Your task to perform on an android device: Open Chrome and go to settings Image 0: 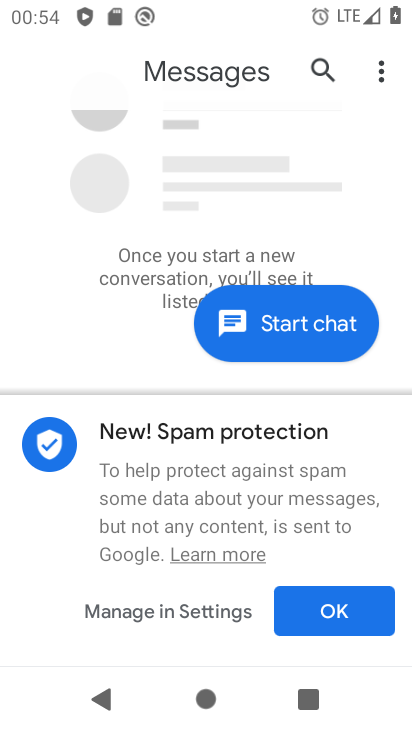
Step 0: press home button
Your task to perform on an android device: Open Chrome and go to settings Image 1: 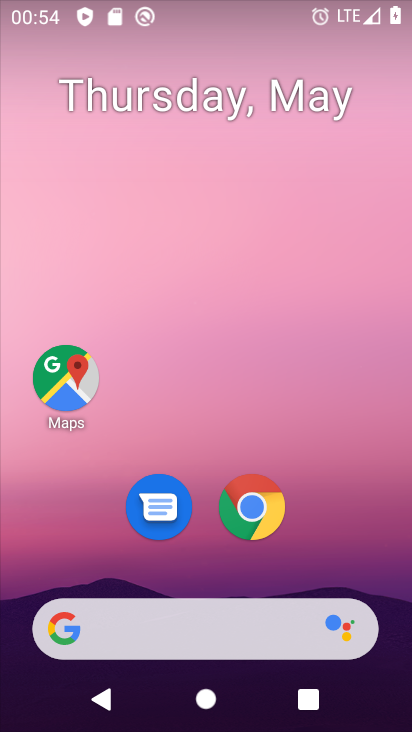
Step 1: click (260, 519)
Your task to perform on an android device: Open Chrome and go to settings Image 2: 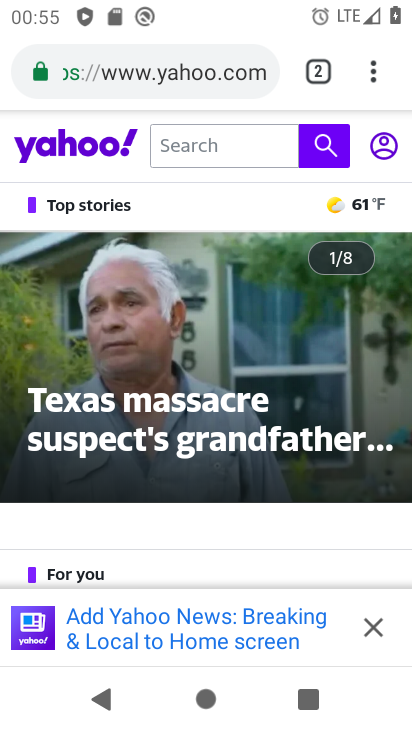
Step 2: click (374, 83)
Your task to perform on an android device: Open Chrome and go to settings Image 3: 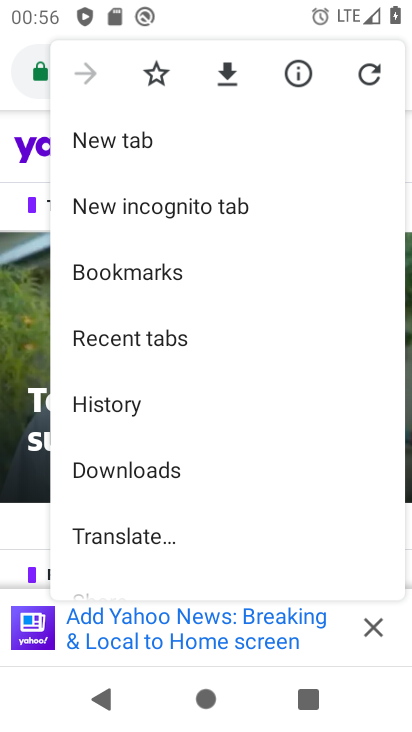
Step 3: drag from (202, 550) to (224, 314)
Your task to perform on an android device: Open Chrome and go to settings Image 4: 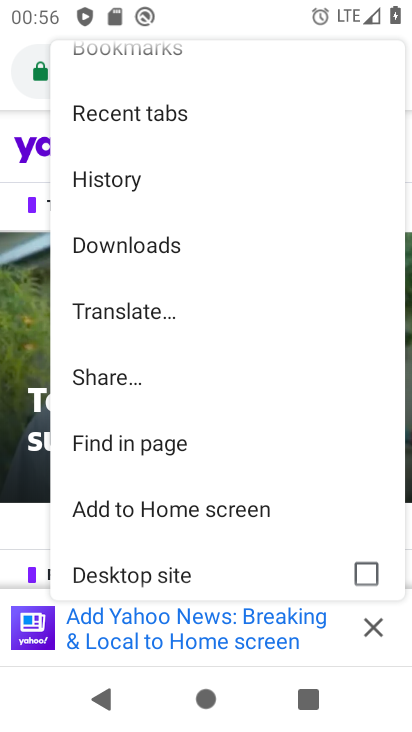
Step 4: drag from (178, 523) to (253, 306)
Your task to perform on an android device: Open Chrome and go to settings Image 5: 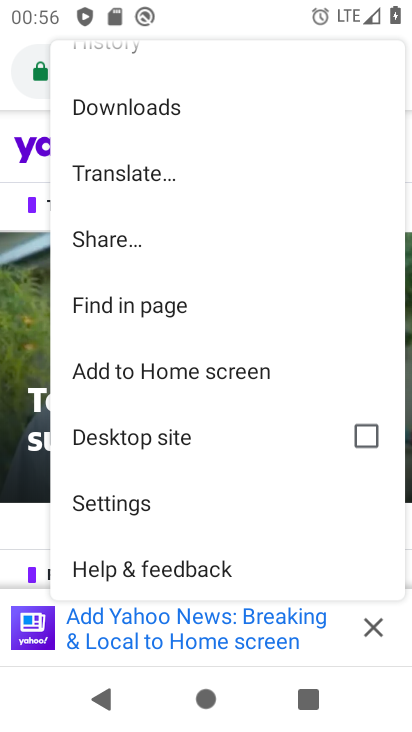
Step 5: click (149, 504)
Your task to perform on an android device: Open Chrome and go to settings Image 6: 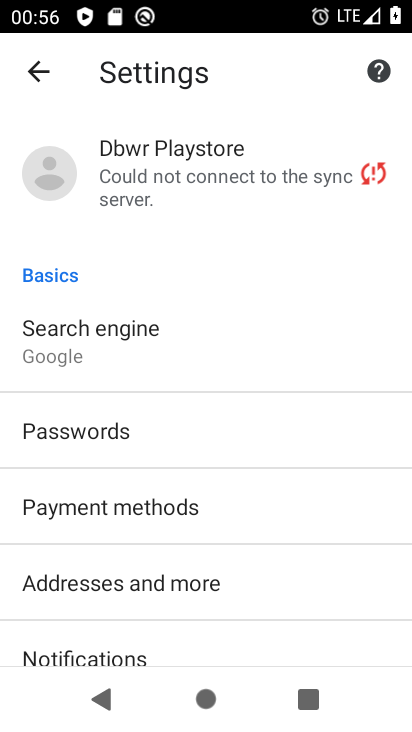
Step 6: task complete